Your task to perform on an android device: What is the news today? Image 0: 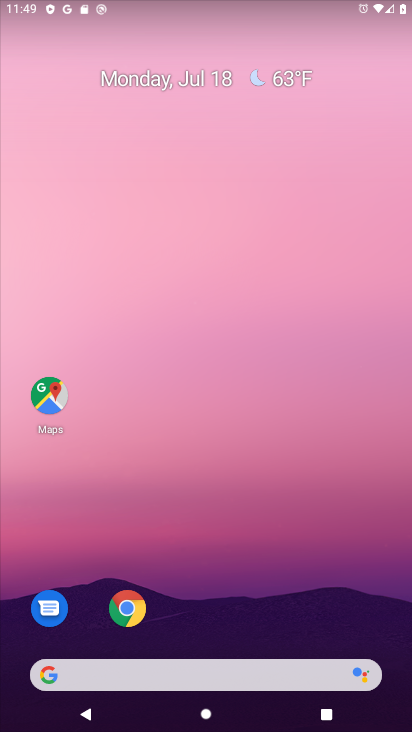
Step 0: click (198, 667)
Your task to perform on an android device: What is the news today? Image 1: 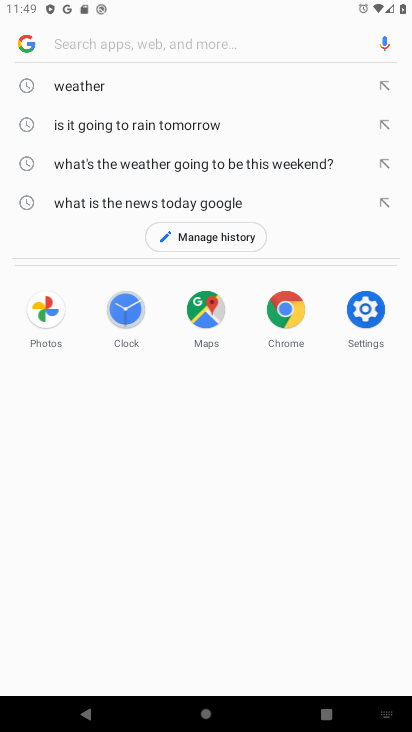
Step 1: type "what is the news today"
Your task to perform on an android device: What is the news today? Image 2: 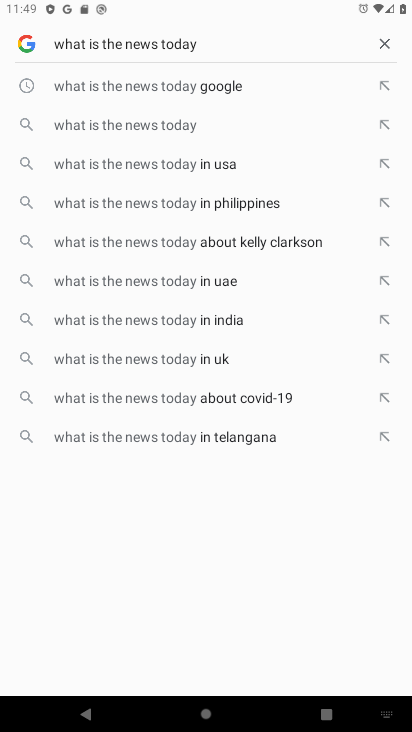
Step 2: click (148, 112)
Your task to perform on an android device: What is the news today? Image 3: 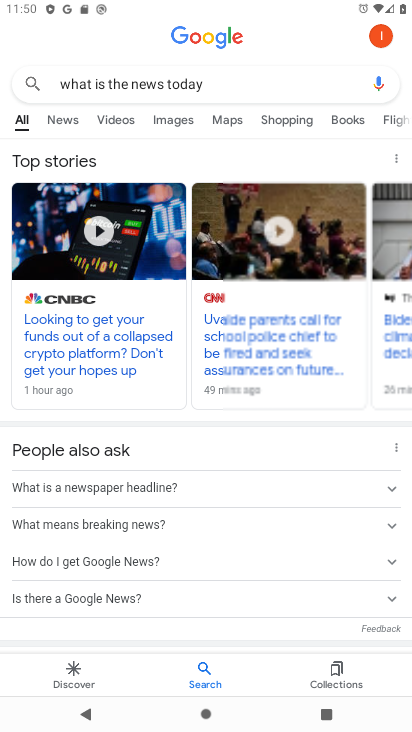
Step 3: click (71, 119)
Your task to perform on an android device: What is the news today? Image 4: 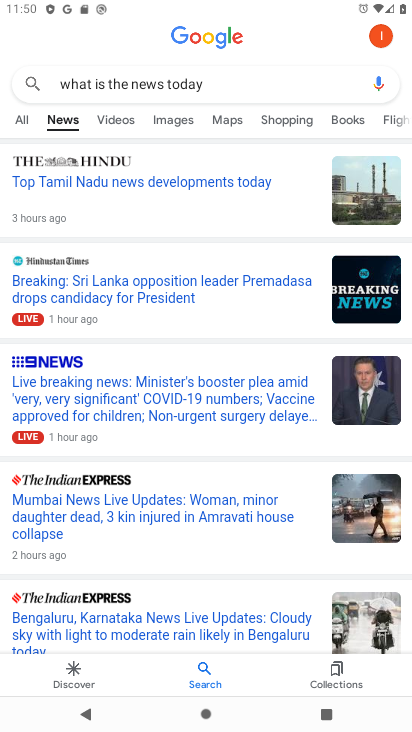
Step 4: task complete